Your task to perform on an android device: change text size in settings app Image 0: 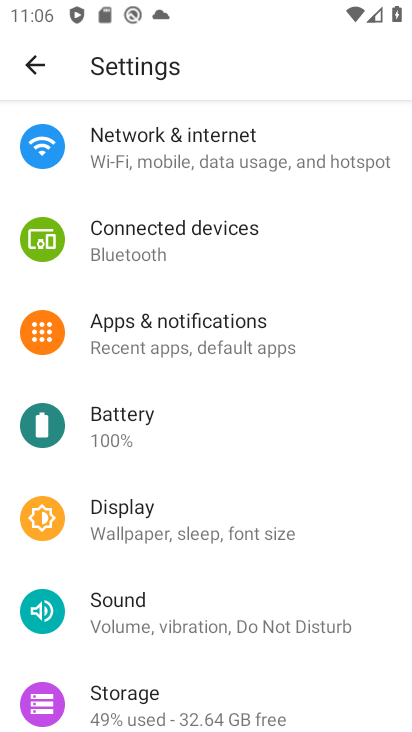
Step 0: click (188, 531)
Your task to perform on an android device: change text size in settings app Image 1: 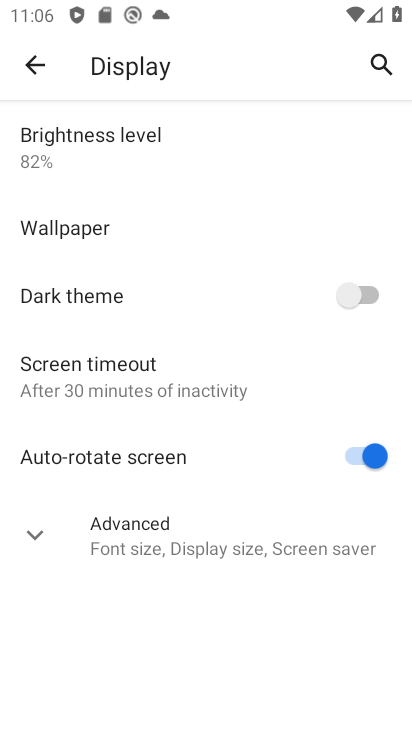
Step 1: click (168, 531)
Your task to perform on an android device: change text size in settings app Image 2: 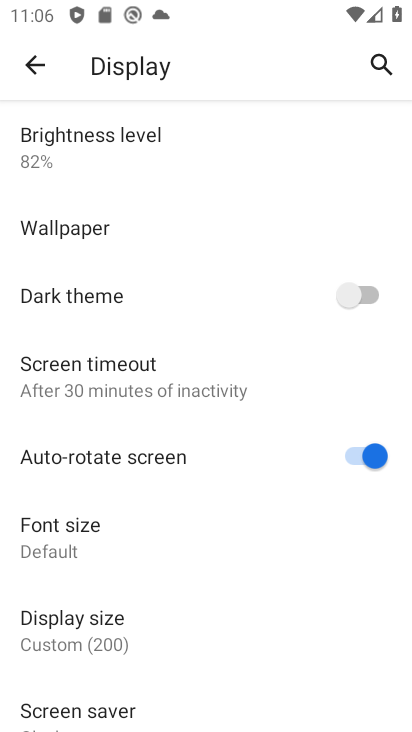
Step 2: drag from (198, 683) to (196, 416)
Your task to perform on an android device: change text size in settings app Image 3: 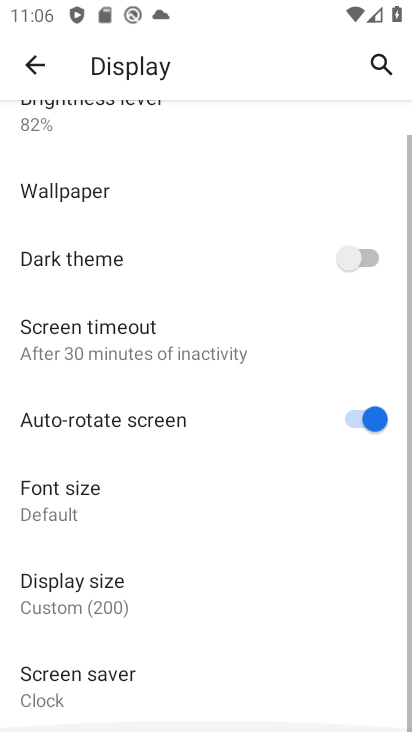
Step 3: click (68, 513)
Your task to perform on an android device: change text size in settings app Image 4: 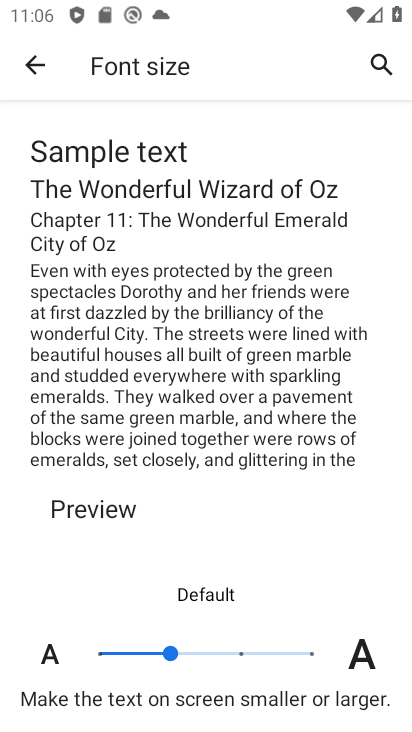
Step 4: click (236, 654)
Your task to perform on an android device: change text size in settings app Image 5: 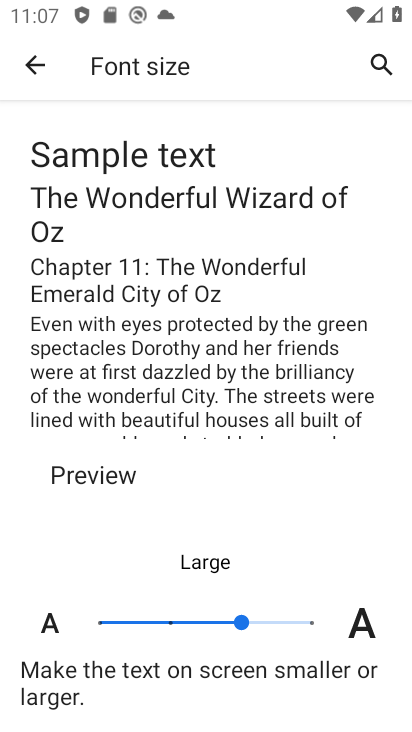
Step 5: task complete